Your task to perform on an android device: turn on javascript in the chrome app Image 0: 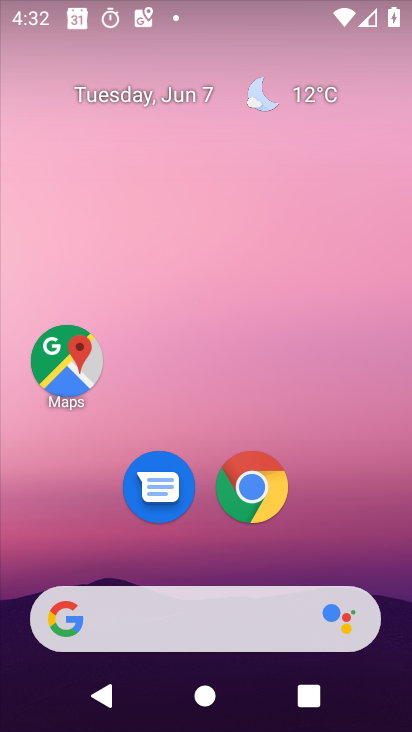
Step 0: click (238, 483)
Your task to perform on an android device: turn on javascript in the chrome app Image 1: 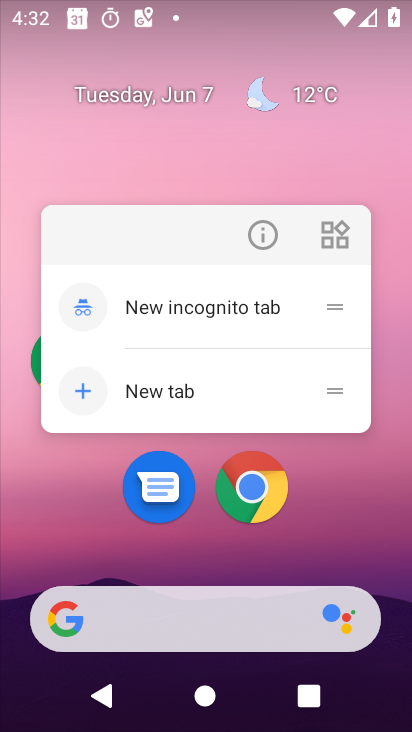
Step 1: click (252, 501)
Your task to perform on an android device: turn on javascript in the chrome app Image 2: 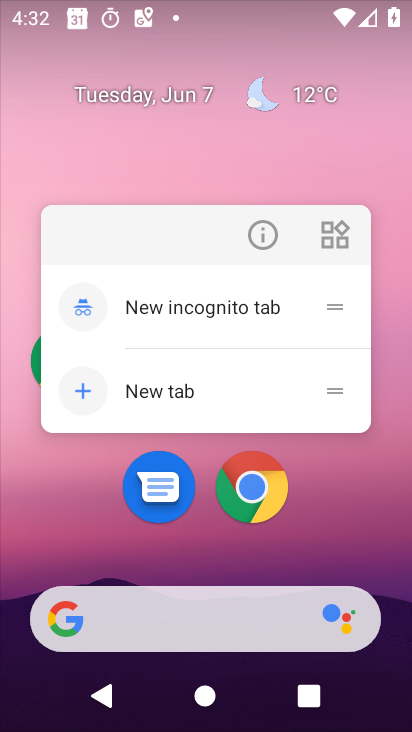
Step 2: click (270, 490)
Your task to perform on an android device: turn on javascript in the chrome app Image 3: 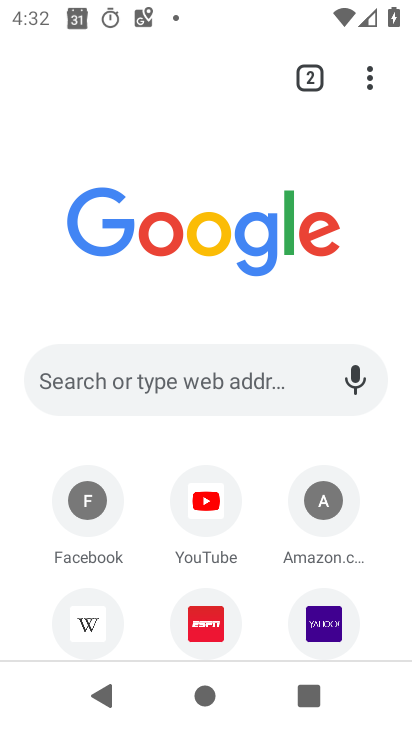
Step 3: drag from (372, 67) to (133, 541)
Your task to perform on an android device: turn on javascript in the chrome app Image 4: 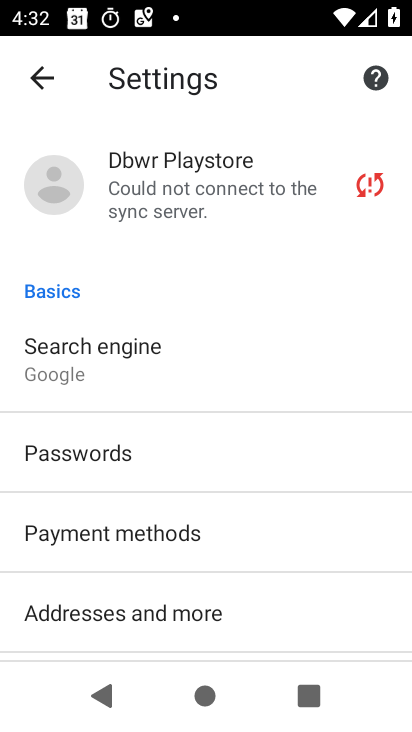
Step 4: drag from (115, 589) to (228, 207)
Your task to perform on an android device: turn on javascript in the chrome app Image 5: 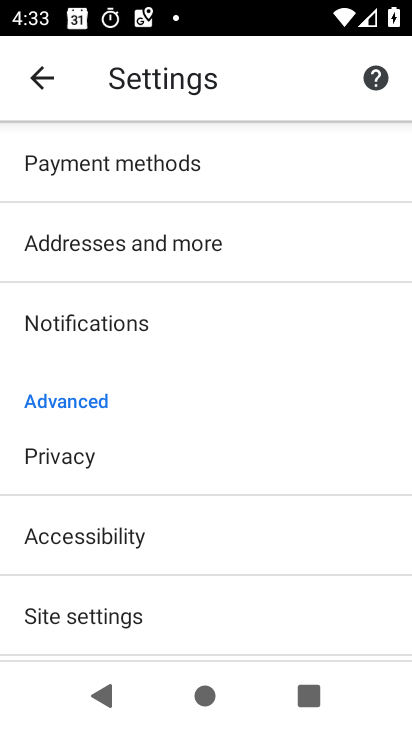
Step 5: click (169, 607)
Your task to perform on an android device: turn on javascript in the chrome app Image 6: 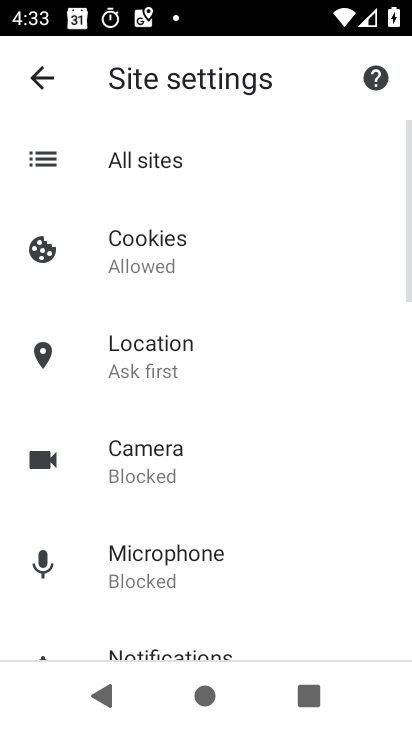
Step 6: drag from (197, 609) to (267, 169)
Your task to perform on an android device: turn on javascript in the chrome app Image 7: 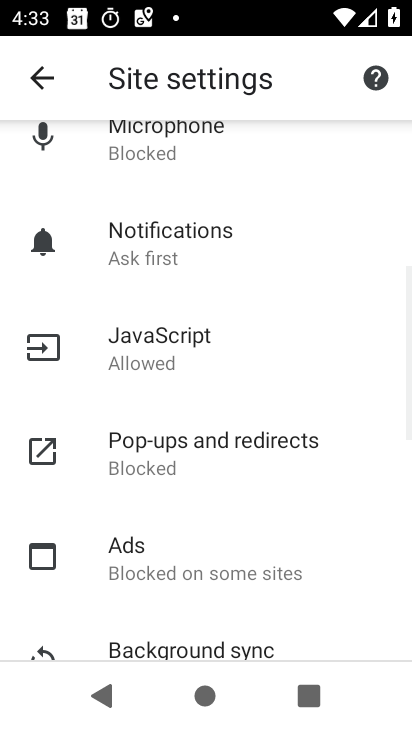
Step 7: click (133, 360)
Your task to perform on an android device: turn on javascript in the chrome app Image 8: 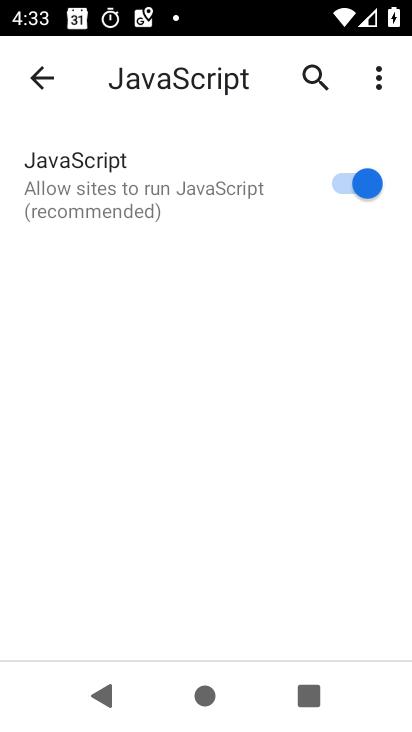
Step 8: task complete